Your task to perform on an android device: remove spam from my inbox in the gmail app Image 0: 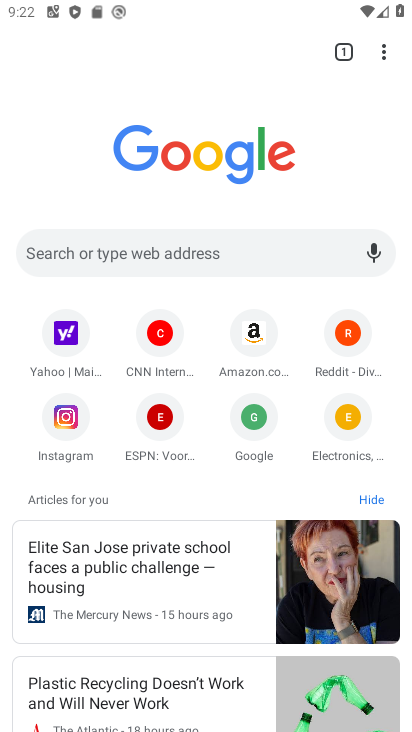
Step 0: press home button
Your task to perform on an android device: remove spam from my inbox in the gmail app Image 1: 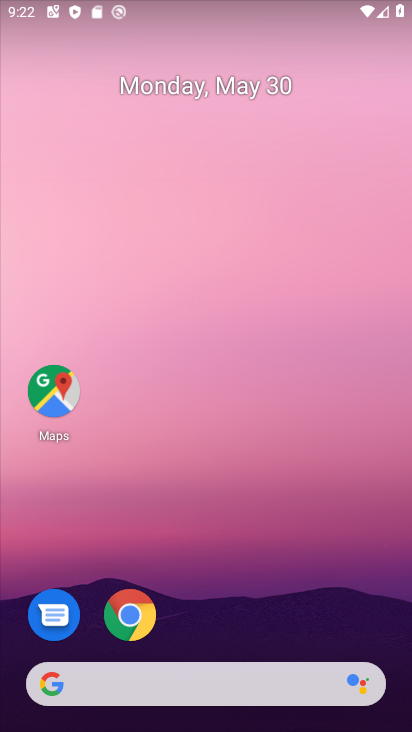
Step 1: drag from (287, 501) to (195, 10)
Your task to perform on an android device: remove spam from my inbox in the gmail app Image 2: 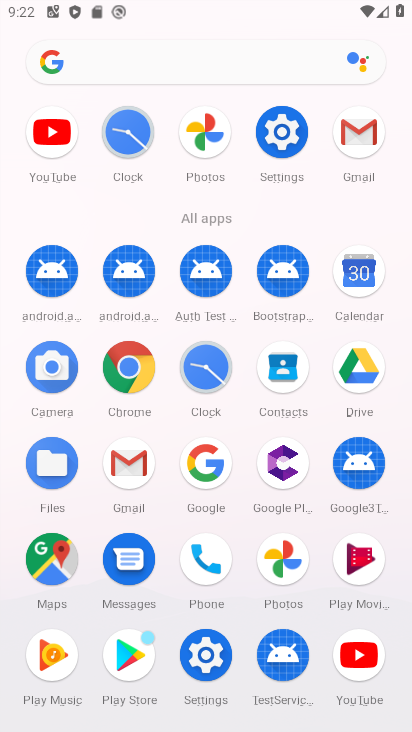
Step 2: click (128, 461)
Your task to perform on an android device: remove spam from my inbox in the gmail app Image 3: 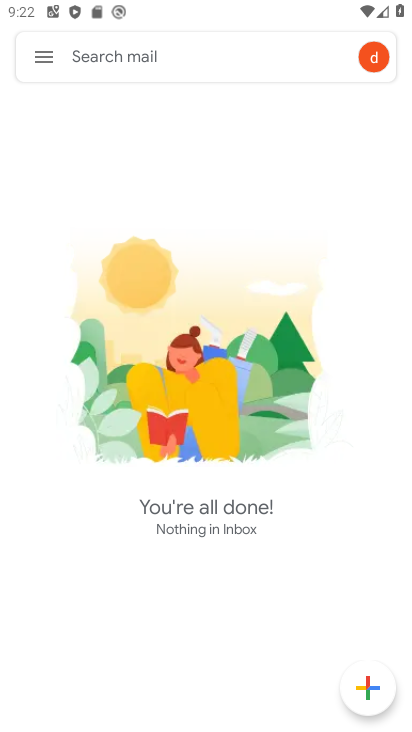
Step 3: click (44, 52)
Your task to perform on an android device: remove spam from my inbox in the gmail app Image 4: 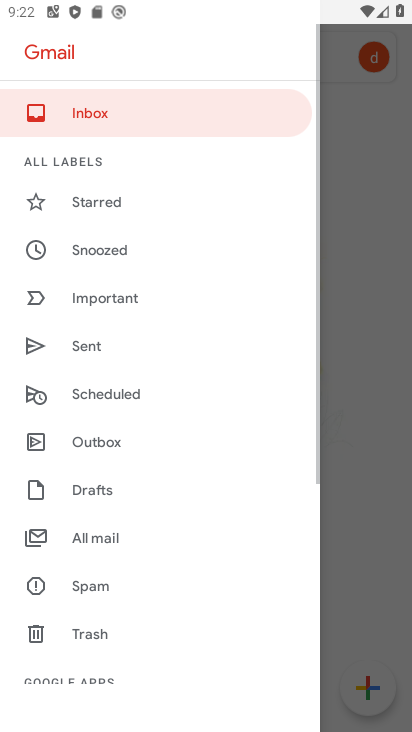
Step 4: click (112, 592)
Your task to perform on an android device: remove spam from my inbox in the gmail app Image 5: 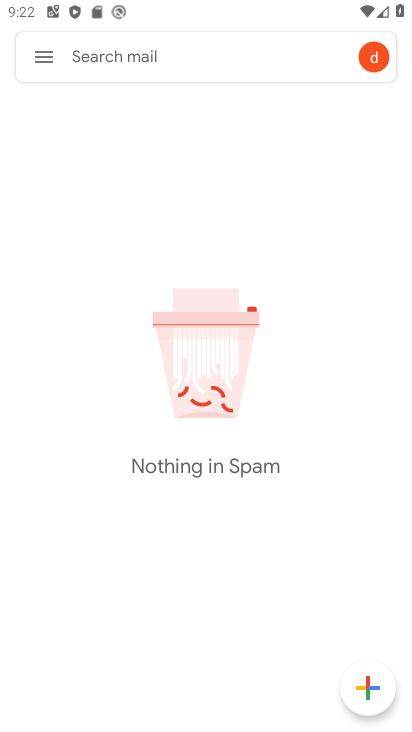
Step 5: task complete